Your task to perform on an android device: turn off improve location accuracy Image 0: 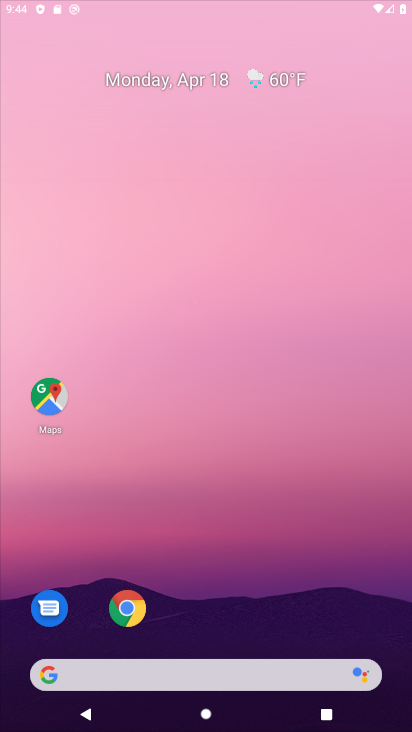
Step 0: drag from (183, 6) to (223, 3)
Your task to perform on an android device: turn off improve location accuracy Image 1: 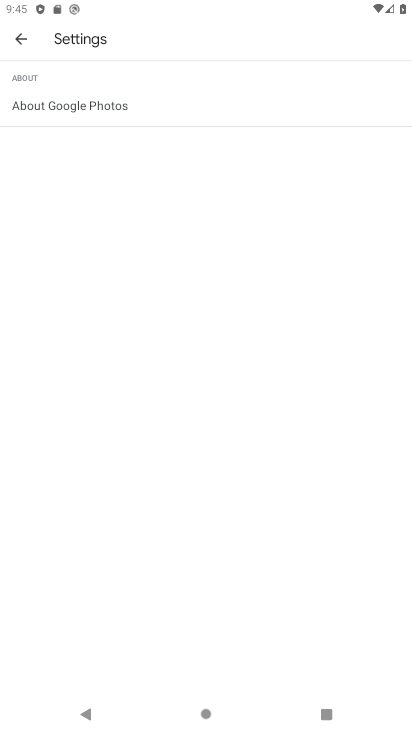
Step 1: press home button
Your task to perform on an android device: turn off improve location accuracy Image 2: 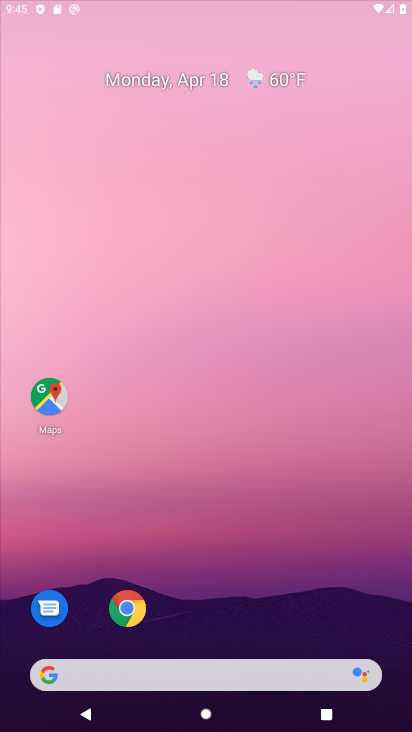
Step 2: drag from (192, 636) to (294, 8)
Your task to perform on an android device: turn off improve location accuracy Image 3: 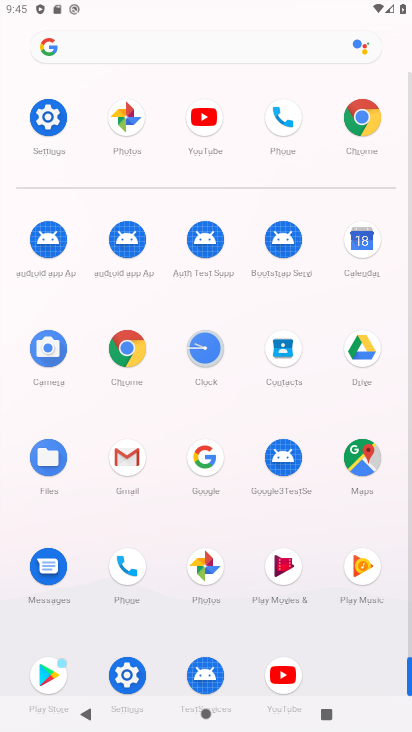
Step 3: click (46, 119)
Your task to perform on an android device: turn off improve location accuracy Image 4: 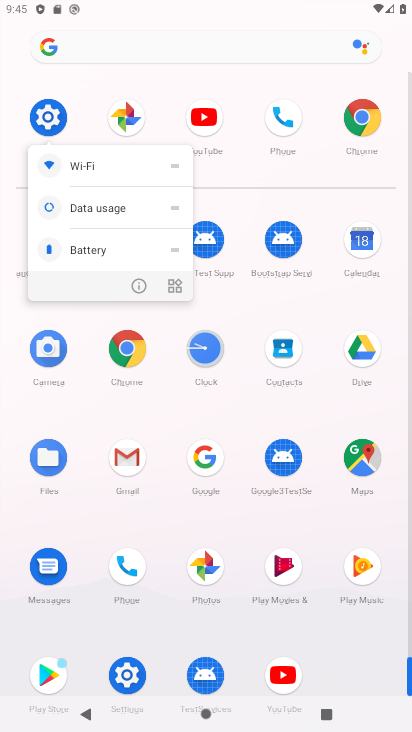
Step 4: click (142, 278)
Your task to perform on an android device: turn off improve location accuracy Image 5: 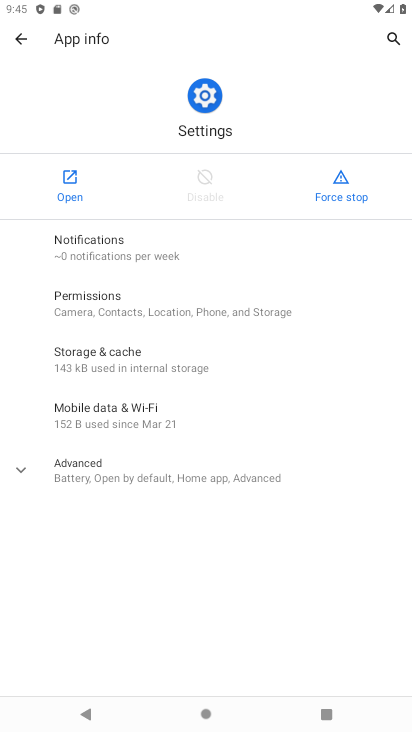
Step 5: click (72, 170)
Your task to perform on an android device: turn off improve location accuracy Image 6: 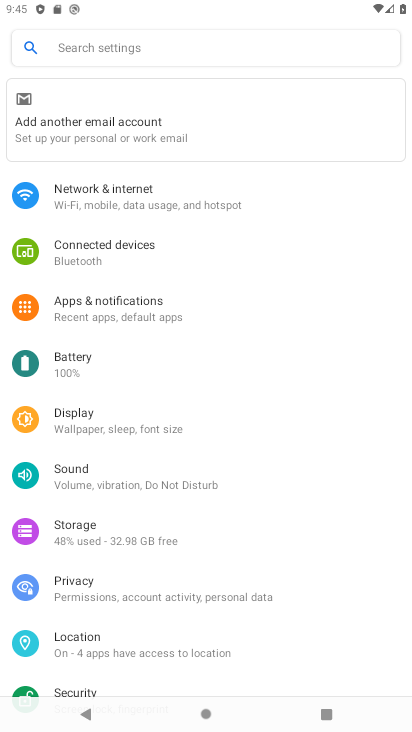
Step 6: drag from (182, 610) to (255, 217)
Your task to perform on an android device: turn off improve location accuracy Image 7: 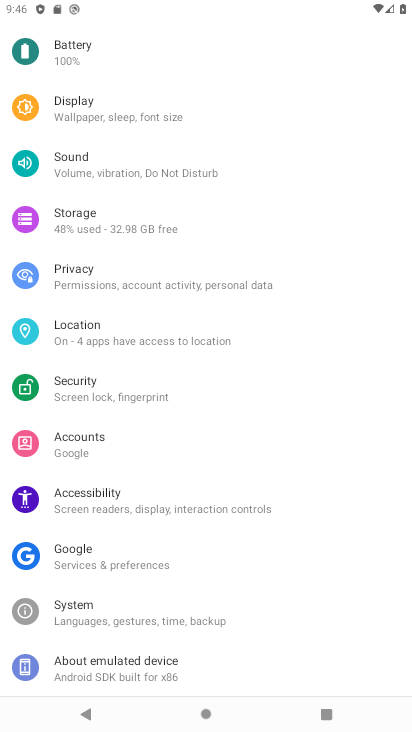
Step 7: click (109, 329)
Your task to perform on an android device: turn off improve location accuracy Image 8: 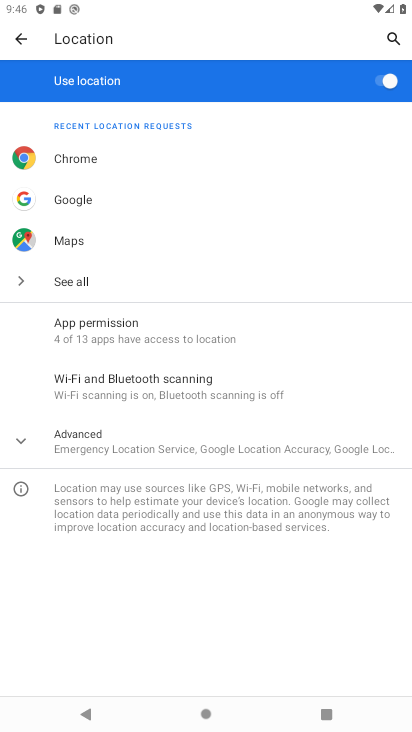
Step 8: click (180, 446)
Your task to perform on an android device: turn off improve location accuracy Image 9: 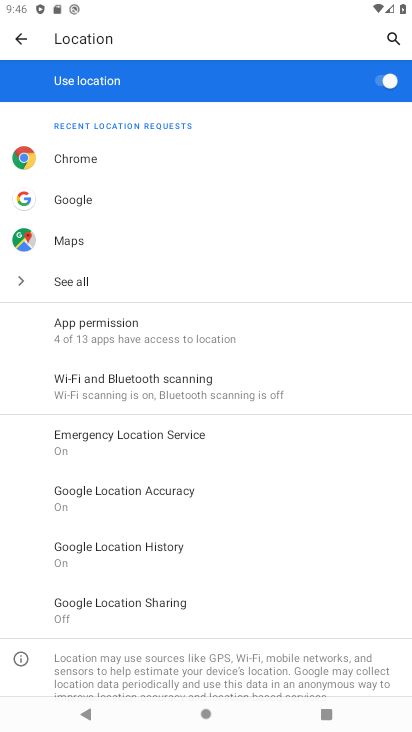
Step 9: click (179, 500)
Your task to perform on an android device: turn off improve location accuracy Image 10: 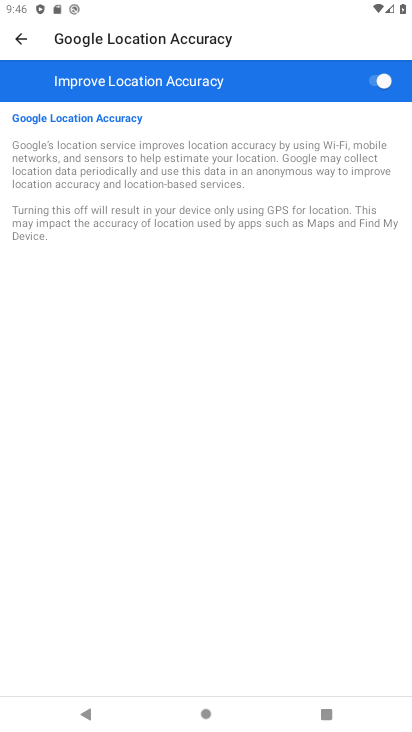
Step 10: drag from (296, 504) to (376, 1)
Your task to perform on an android device: turn off improve location accuracy Image 11: 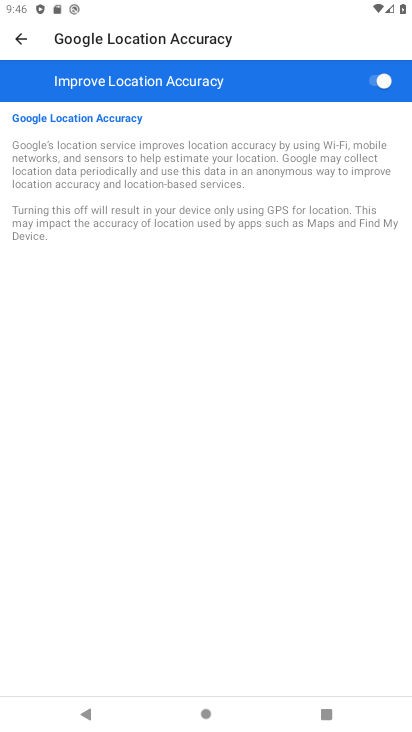
Step 11: click (367, 107)
Your task to perform on an android device: turn off improve location accuracy Image 12: 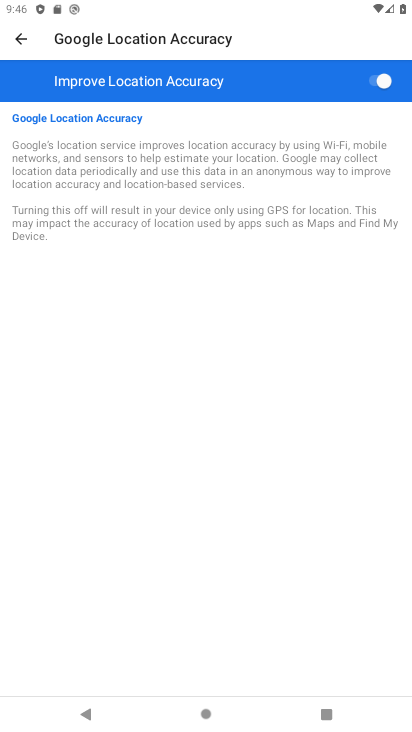
Step 12: click (376, 78)
Your task to perform on an android device: turn off improve location accuracy Image 13: 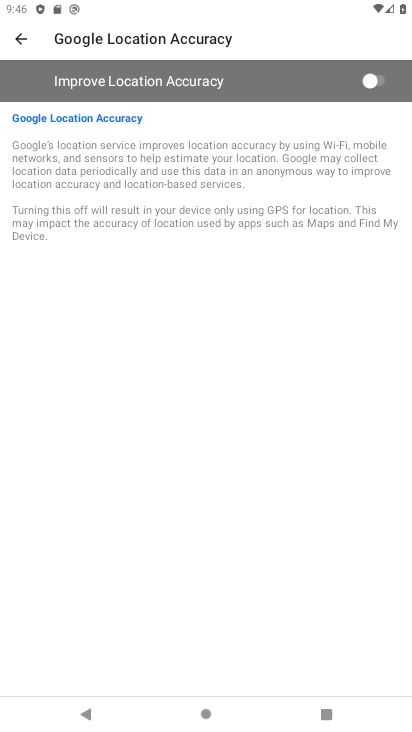
Step 13: task complete